Your task to perform on an android device: toggle notifications settings in the gmail app Image 0: 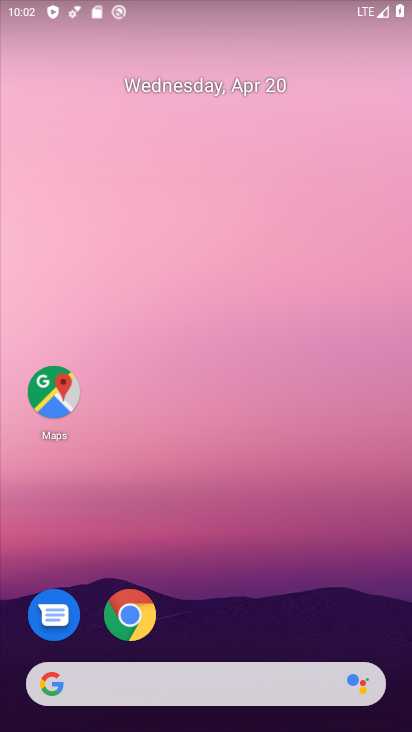
Step 0: drag from (209, 608) to (242, 212)
Your task to perform on an android device: toggle notifications settings in the gmail app Image 1: 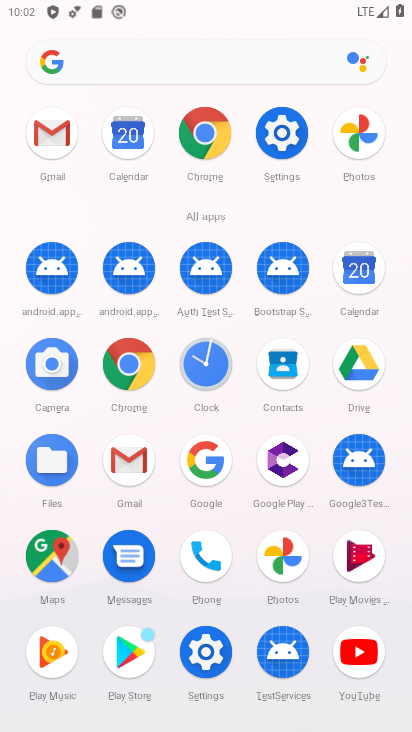
Step 1: click (38, 132)
Your task to perform on an android device: toggle notifications settings in the gmail app Image 2: 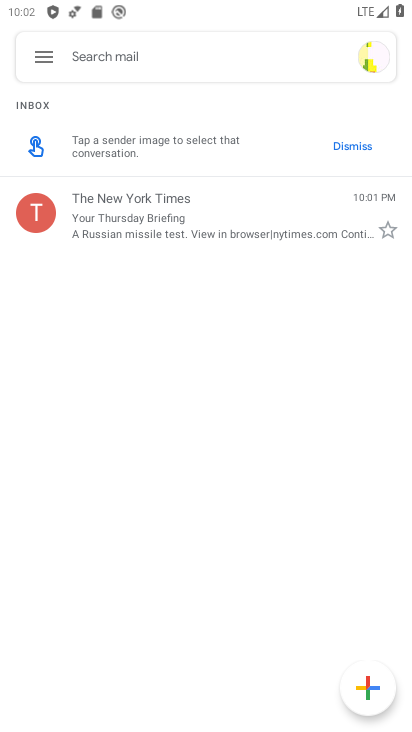
Step 2: click (46, 62)
Your task to perform on an android device: toggle notifications settings in the gmail app Image 3: 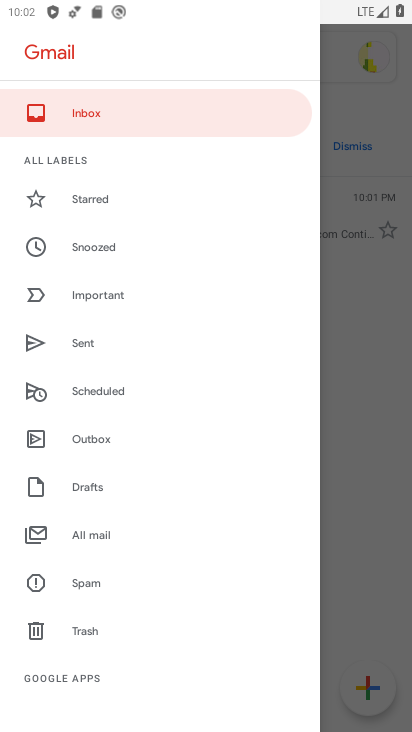
Step 3: drag from (139, 584) to (179, 13)
Your task to perform on an android device: toggle notifications settings in the gmail app Image 4: 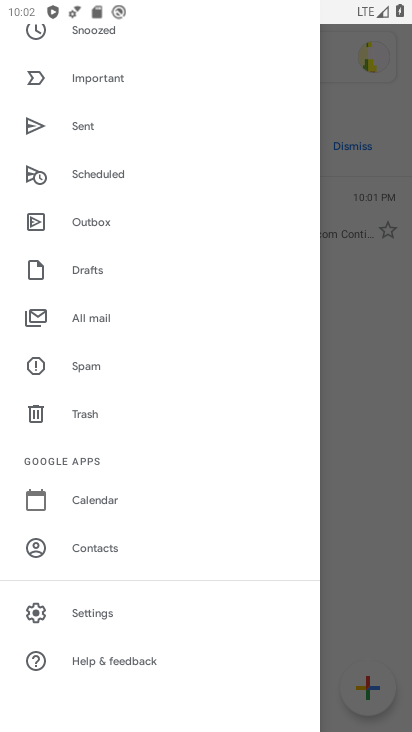
Step 4: click (129, 622)
Your task to perform on an android device: toggle notifications settings in the gmail app Image 5: 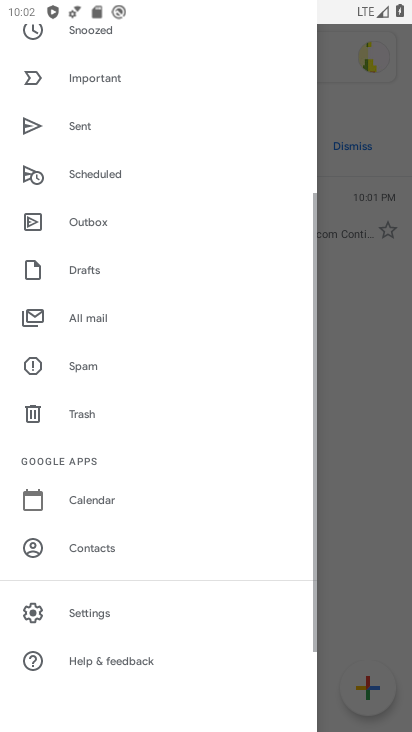
Step 5: click (129, 622)
Your task to perform on an android device: toggle notifications settings in the gmail app Image 6: 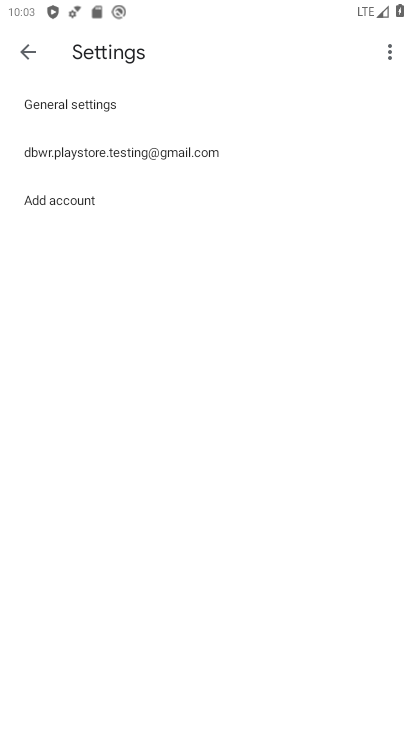
Step 6: click (142, 89)
Your task to perform on an android device: toggle notifications settings in the gmail app Image 7: 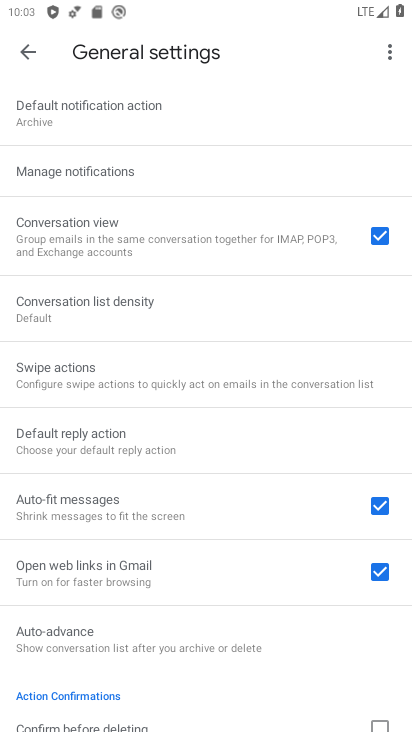
Step 7: click (130, 183)
Your task to perform on an android device: toggle notifications settings in the gmail app Image 8: 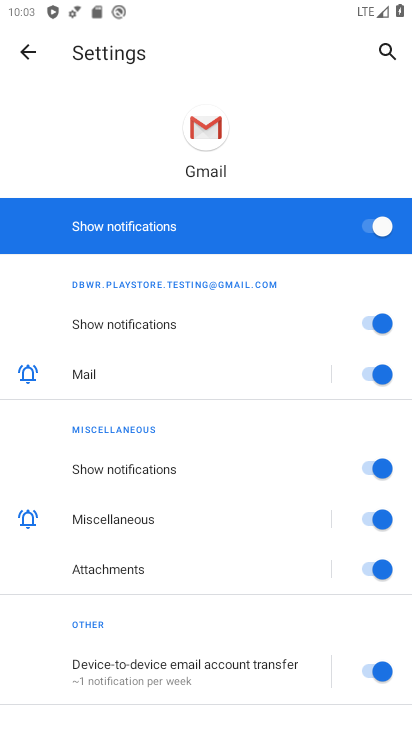
Step 8: click (165, 203)
Your task to perform on an android device: toggle notifications settings in the gmail app Image 9: 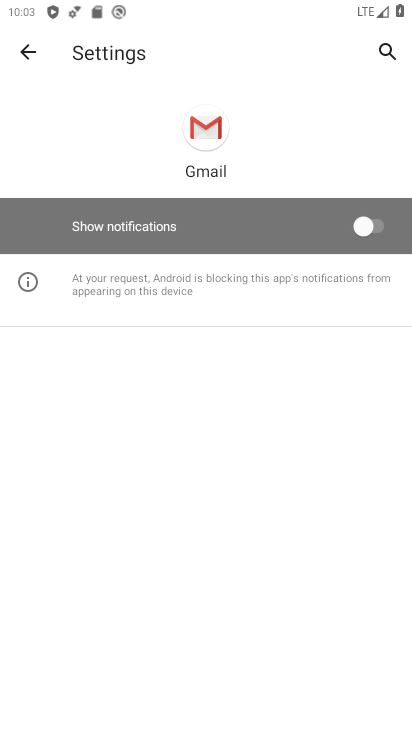
Step 9: task complete